Your task to perform on an android device: What's the weather today? Image 0: 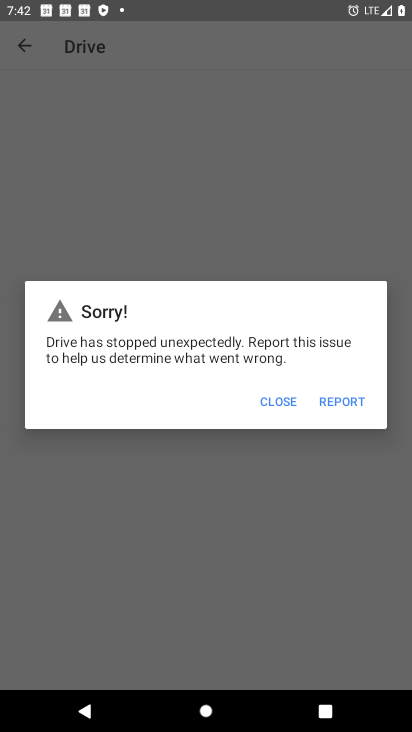
Step 0: press home button
Your task to perform on an android device: What's the weather today? Image 1: 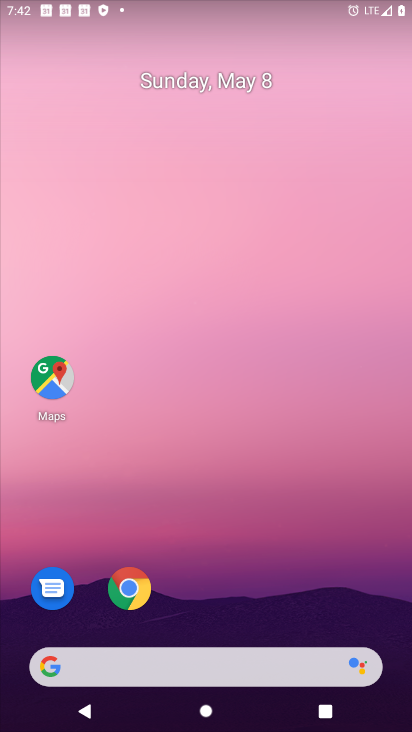
Step 1: click (53, 665)
Your task to perform on an android device: What's the weather today? Image 2: 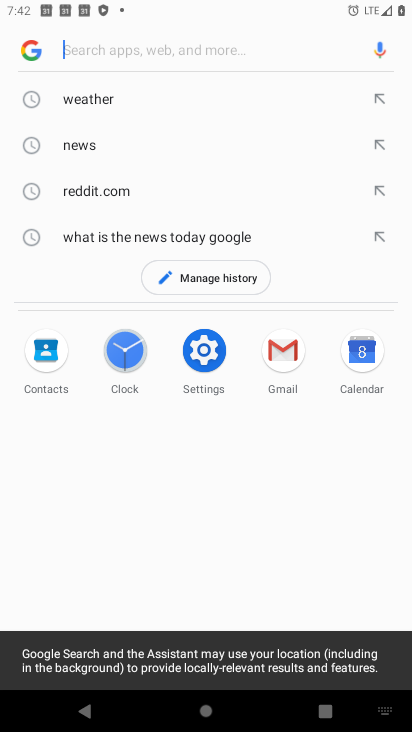
Step 2: click (109, 99)
Your task to perform on an android device: What's the weather today? Image 3: 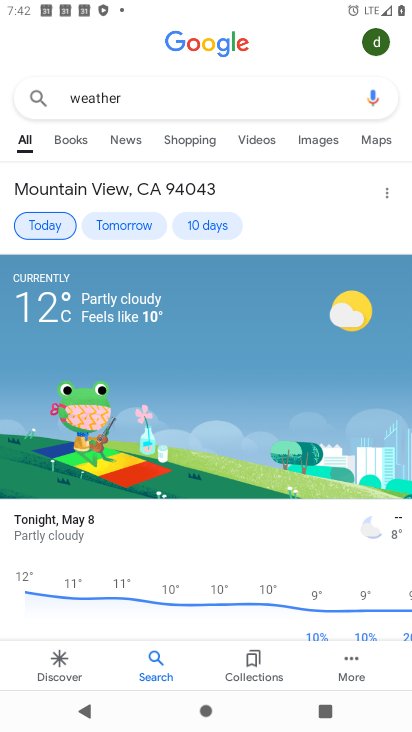
Step 3: task complete